Your task to perform on an android device: Open eBay Image 0: 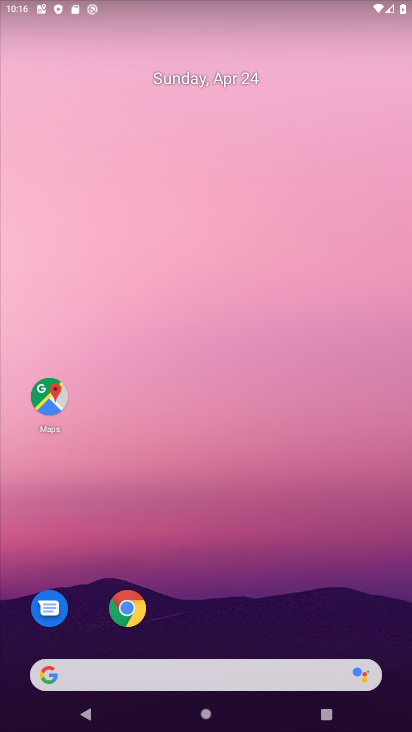
Step 0: drag from (221, 600) to (236, 84)
Your task to perform on an android device: Open eBay Image 1: 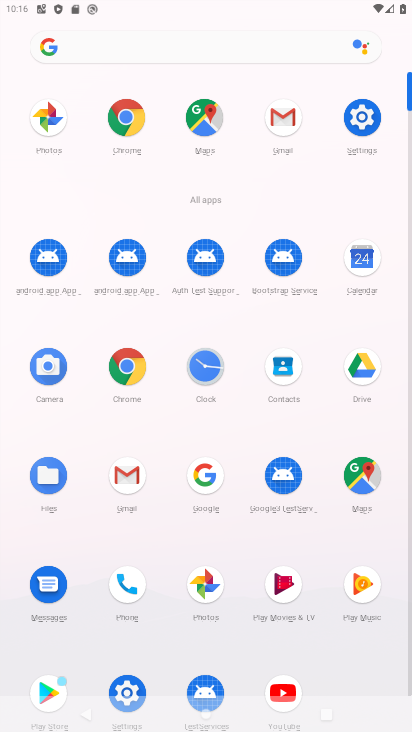
Step 1: click (127, 140)
Your task to perform on an android device: Open eBay Image 2: 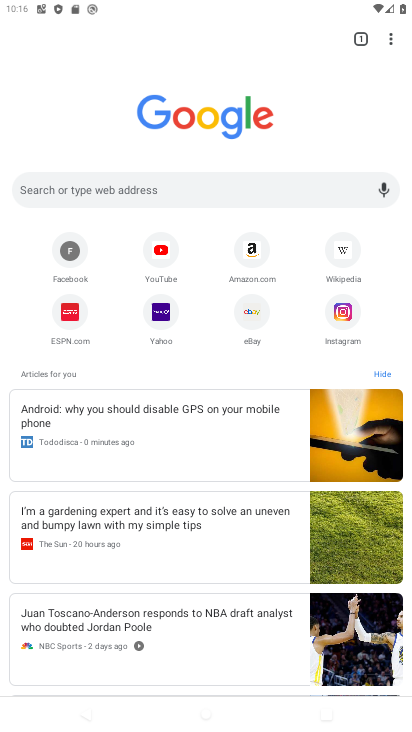
Step 2: click (102, 182)
Your task to perform on an android device: Open eBay Image 3: 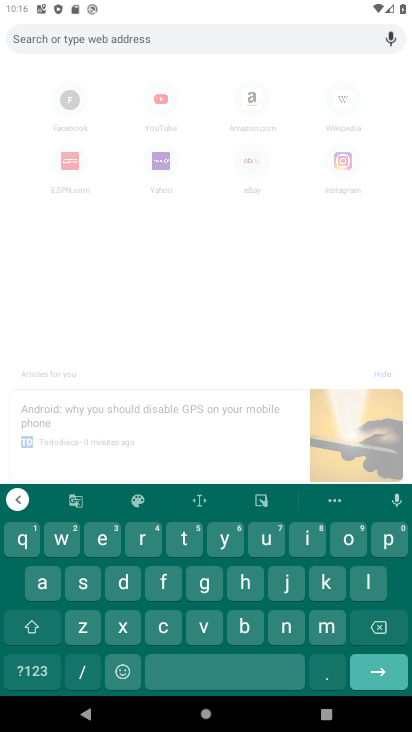
Step 3: click (104, 536)
Your task to perform on an android device: Open eBay Image 4: 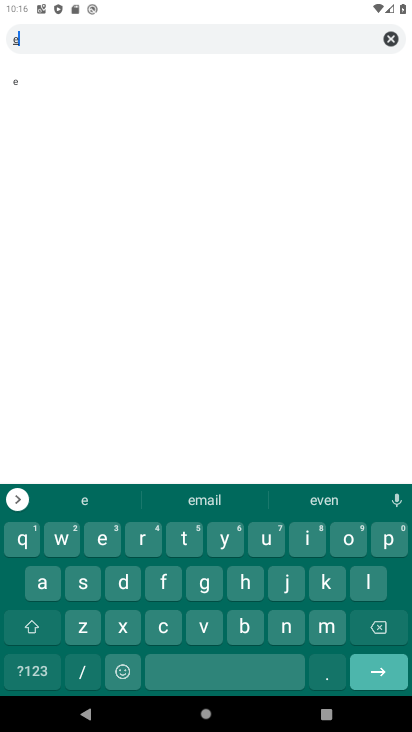
Step 4: click (249, 627)
Your task to perform on an android device: Open eBay Image 5: 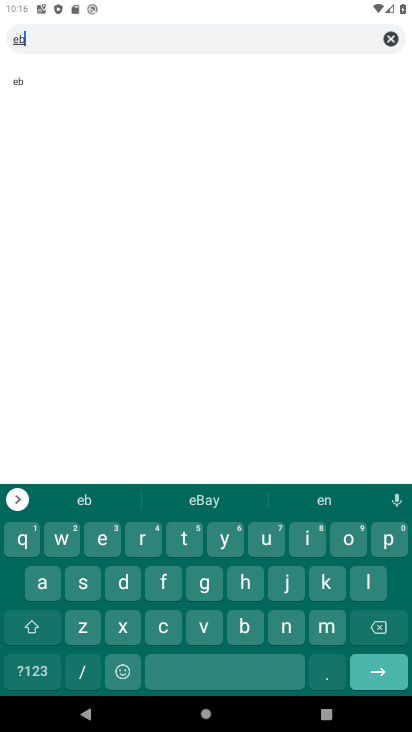
Step 5: click (39, 590)
Your task to perform on an android device: Open eBay Image 6: 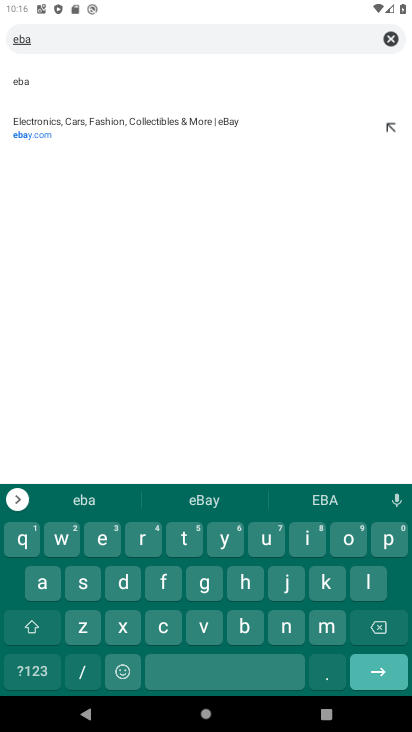
Step 6: click (227, 545)
Your task to perform on an android device: Open eBay Image 7: 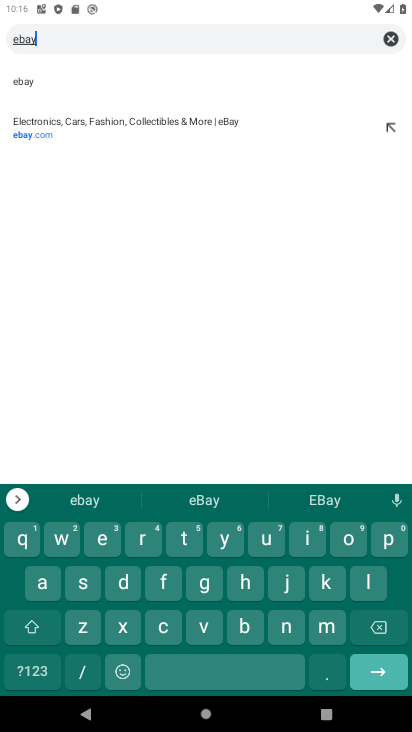
Step 7: click (145, 92)
Your task to perform on an android device: Open eBay Image 8: 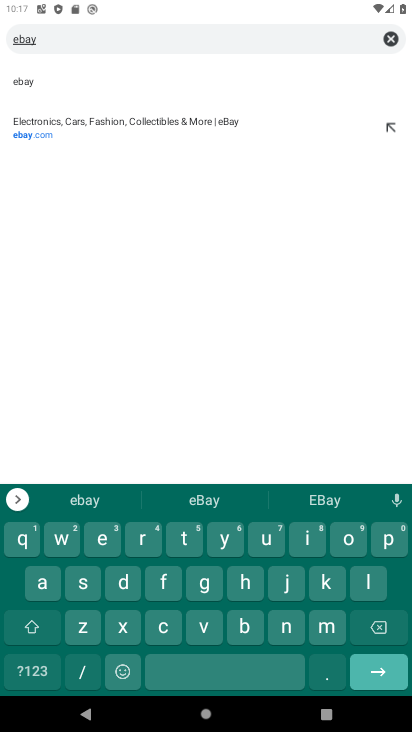
Step 8: click (145, 92)
Your task to perform on an android device: Open eBay Image 9: 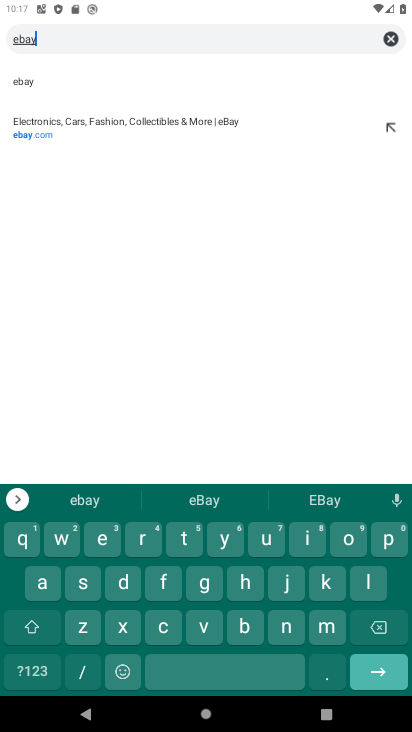
Step 9: click (387, 678)
Your task to perform on an android device: Open eBay Image 10: 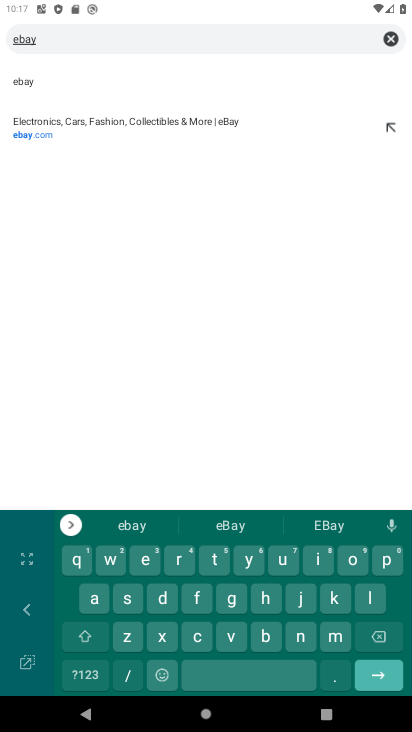
Step 10: click (373, 673)
Your task to perform on an android device: Open eBay Image 11: 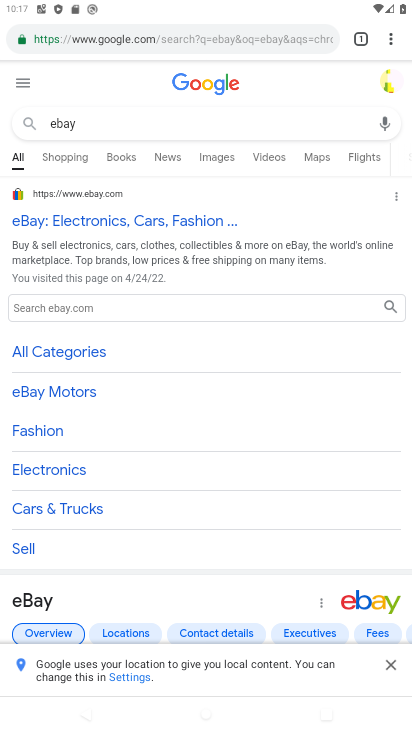
Step 11: click (138, 228)
Your task to perform on an android device: Open eBay Image 12: 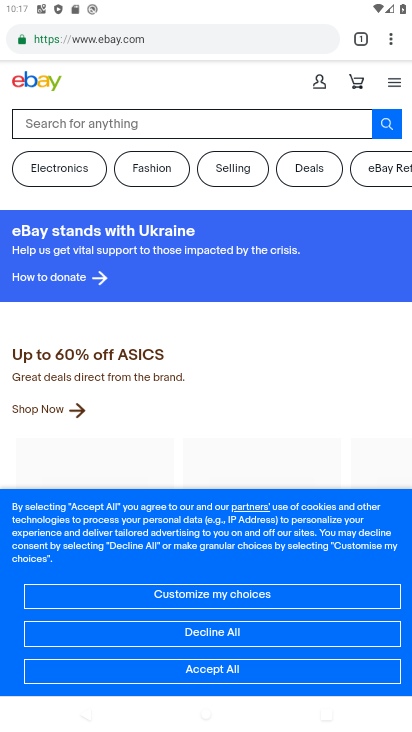
Step 12: task complete